Your task to perform on an android device: Open Youtube and go to the subscriptions tab Image 0: 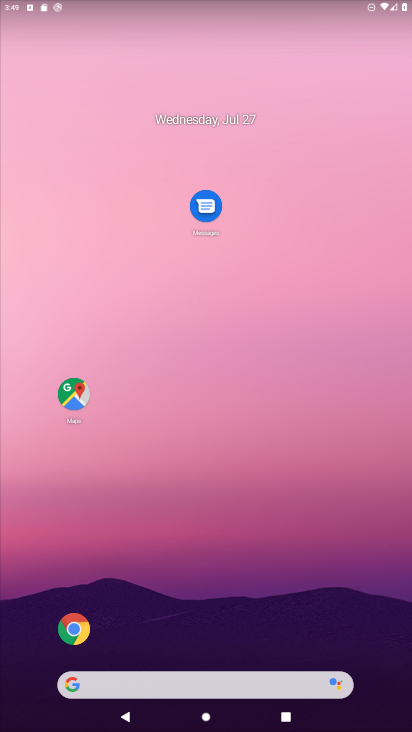
Step 0: drag from (183, 643) to (160, 173)
Your task to perform on an android device: Open Youtube and go to the subscriptions tab Image 1: 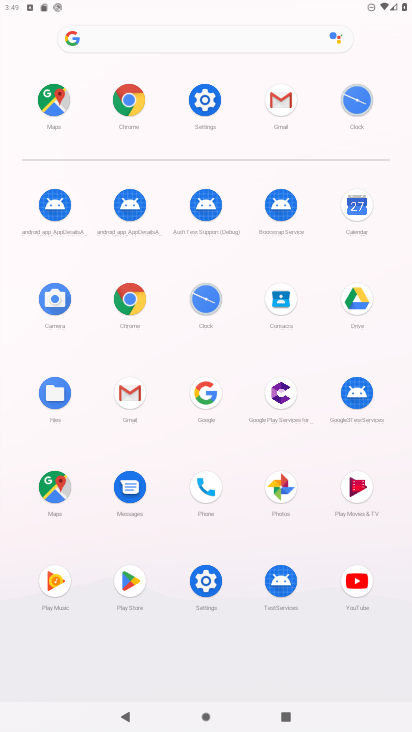
Step 1: click (359, 598)
Your task to perform on an android device: Open Youtube and go to the subscriptions tab Image 2: 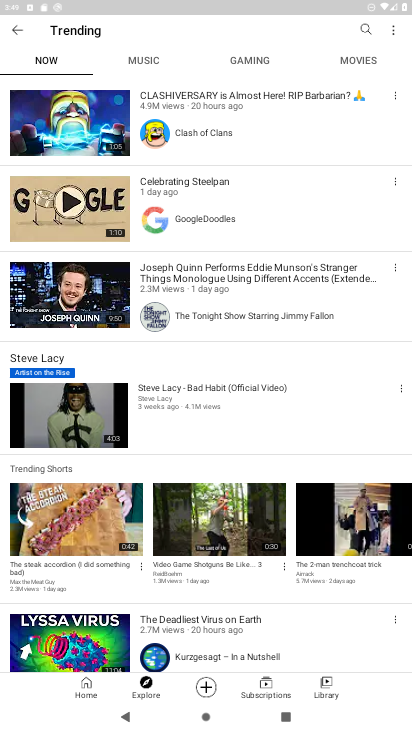
Step 2: click (260, 681)
Your task to perform on an android device: Open Youtube and go to the subscriptions tab Image 3: 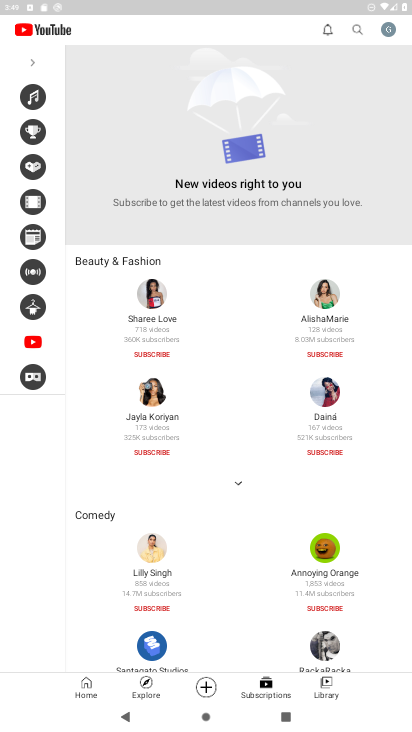
Step 3: task complete